Your task to perform on an android device: turn on notifications settings in the gmail app Image 0: 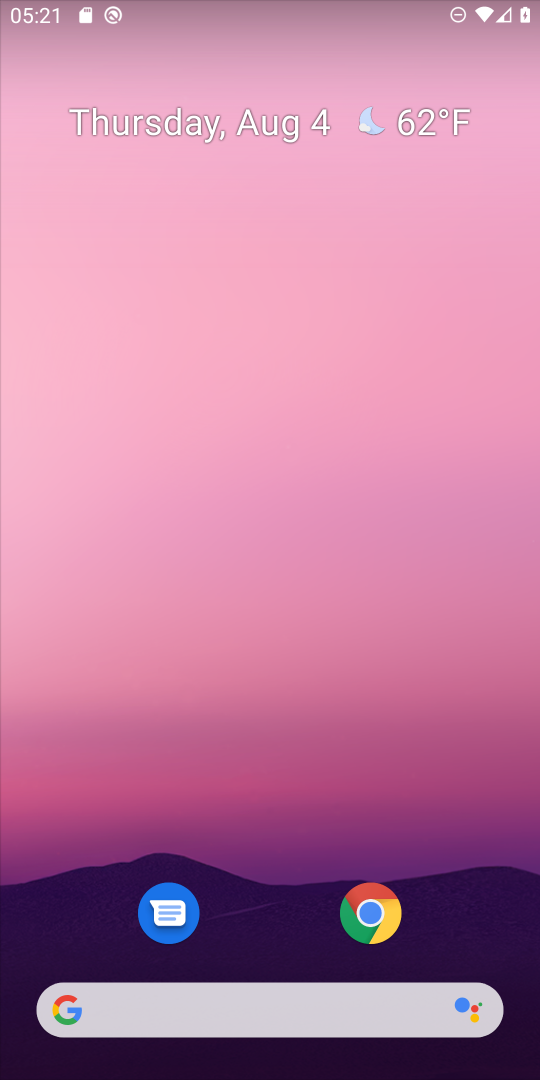
Step 0: drag from (435, 841) to (324, 2)
Your task to perform on an android device: turn on notifications settings in the gmail app Image 1: 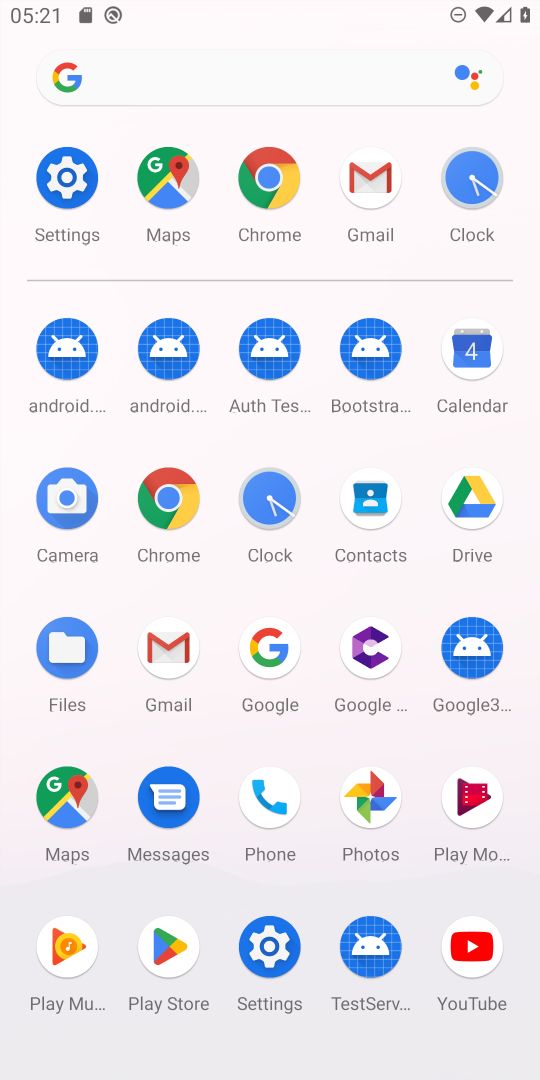
Step 1: click (166, 630)
Your task to perform on an android device: turn on notifications settings in the gmail app Image 2: 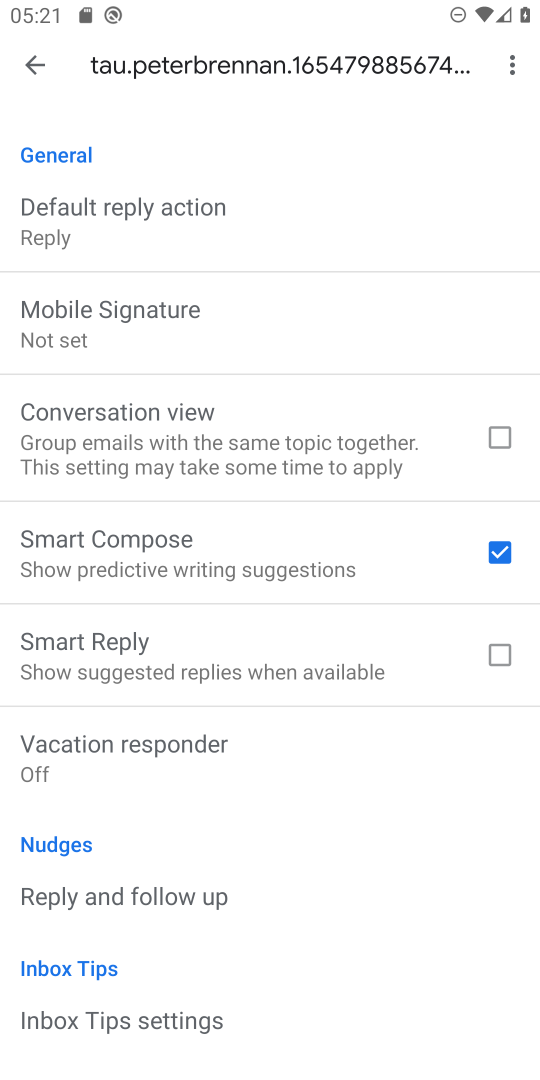
Step 2: drag from (174, 285) to (321, 1063)
Your task to perform on an android device: turn on notifications settings in the gmail app Image 3: 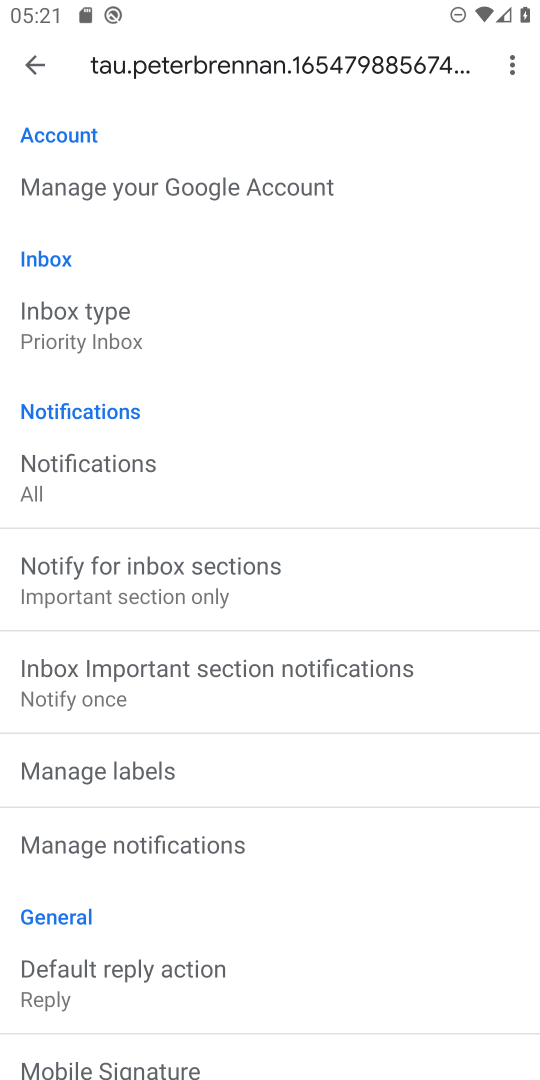
Step 3: click (188, 835)
Your task to perform on an android device: turn on notifications settings in the gmail app Image 4: 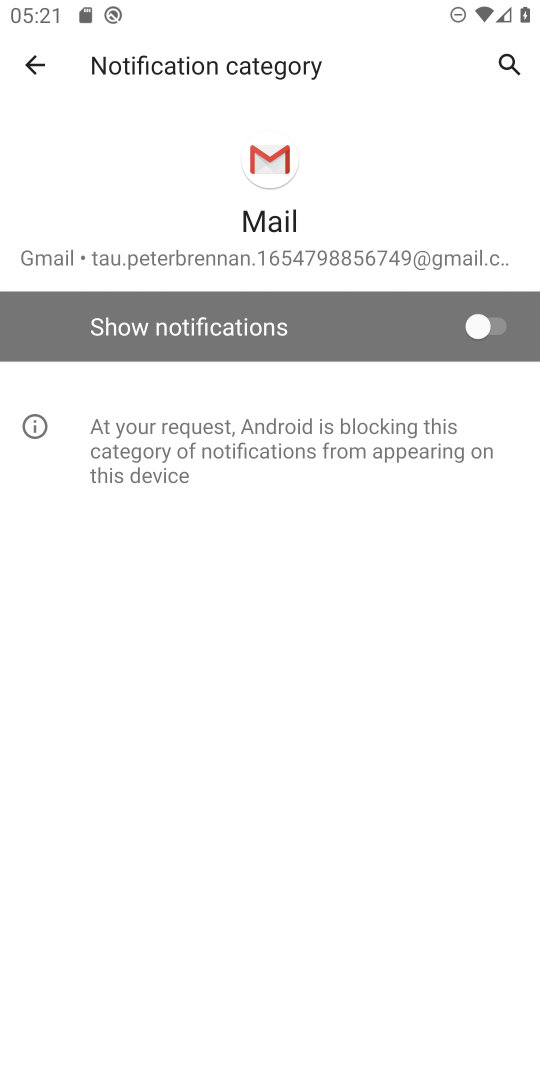
Step 4: click (491, 318)
Your task to perform on an android device: turn on notifications settings in the gmail app Image 5: 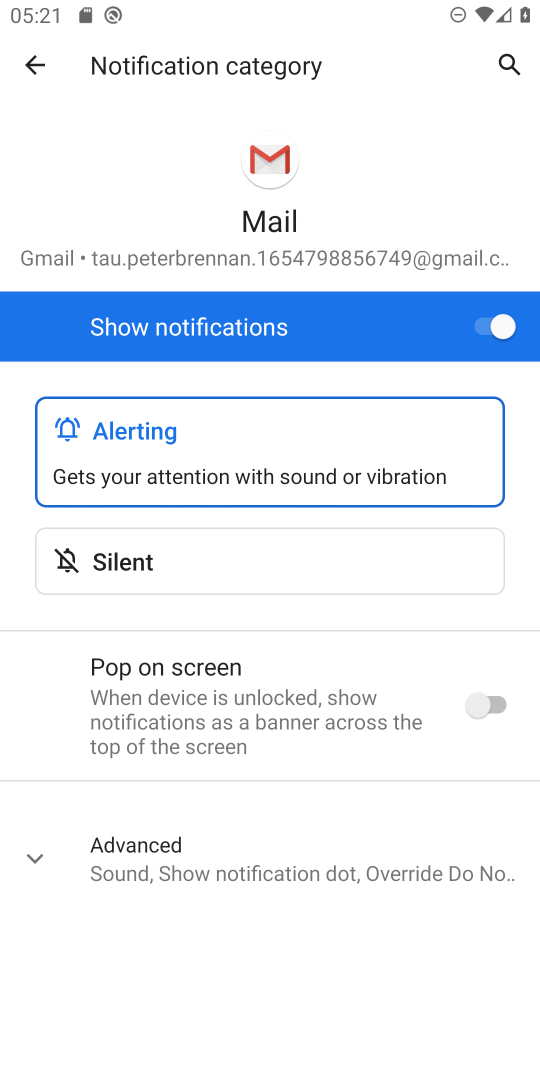
Step 5: task complete